Your task to perform on an android device: Open the web browser Image 0: 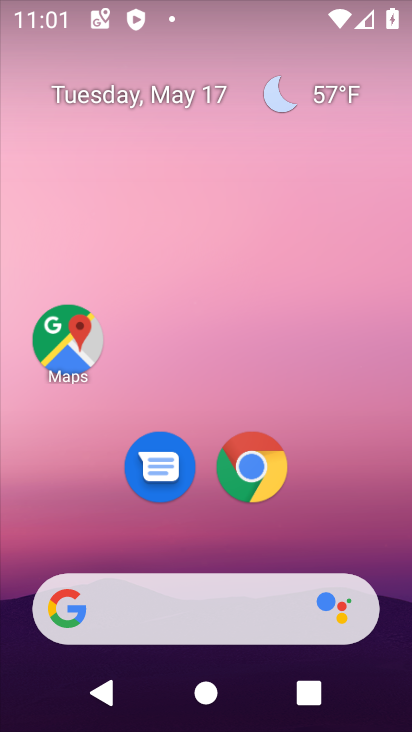
Step 0: click (247, 448)
Your task to perform on an android device: Open the web browser Image 1: 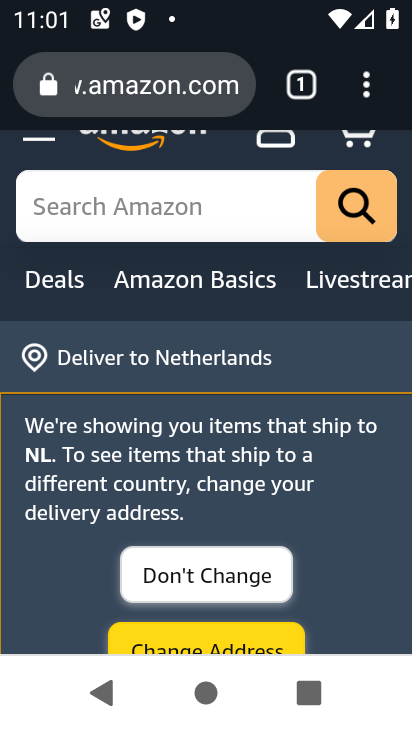
Step 1: task complete